Your task to perform on an android device: check the backup settings in the google photos Image 0: 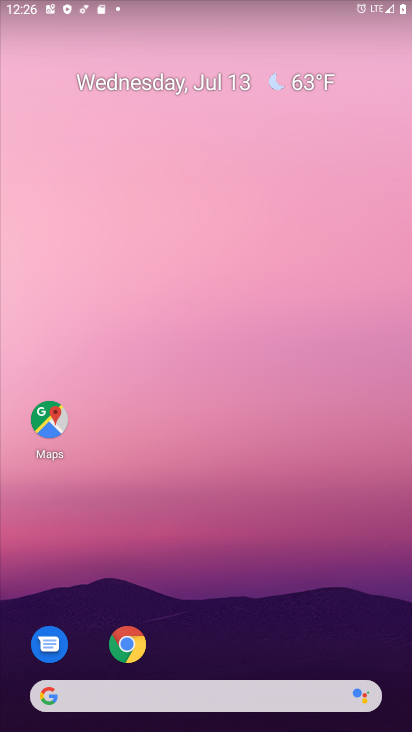
Step 0: drag from (200, 694) to (224, 176)
Your task to perform on an android device: check the backup settings in the google photos Image 1: 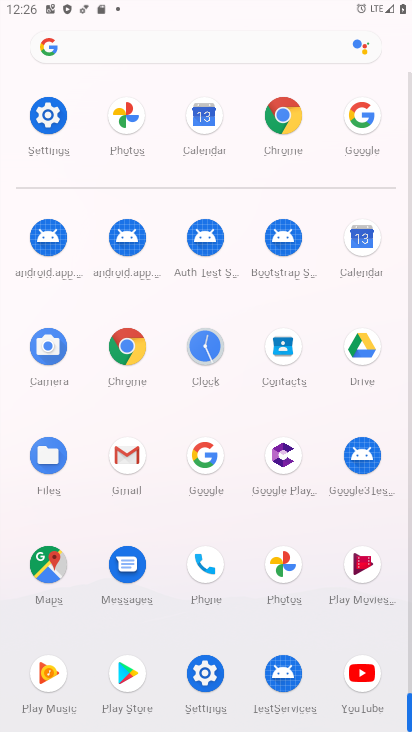
Step 1: click (124, 114)
Your task to perform on an android device: check the backup settings in the google photos Image 2: 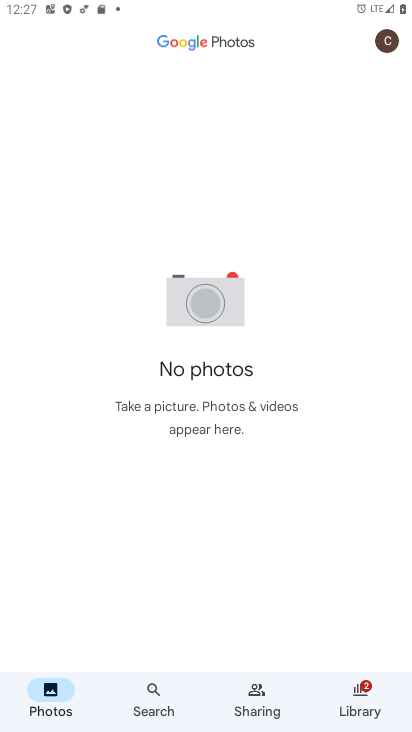
Step 2: click (389, 46)
Your task to perform on an android device: check the backup settings in the google photos Image 3: 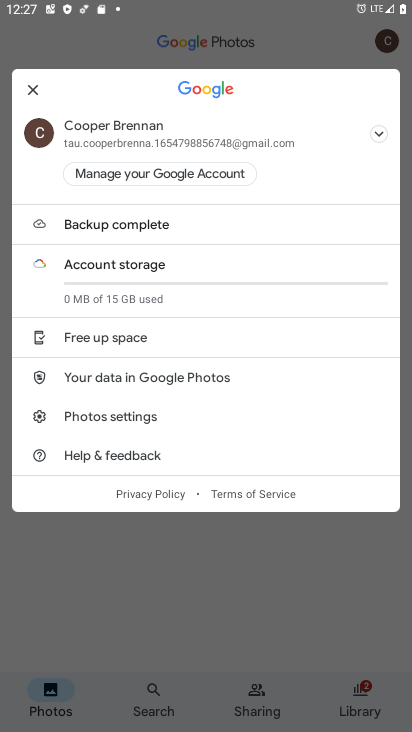
Step 3: click (130, 416)
Your task to perform on an android device: check the backup settings in the google photos Image 4: 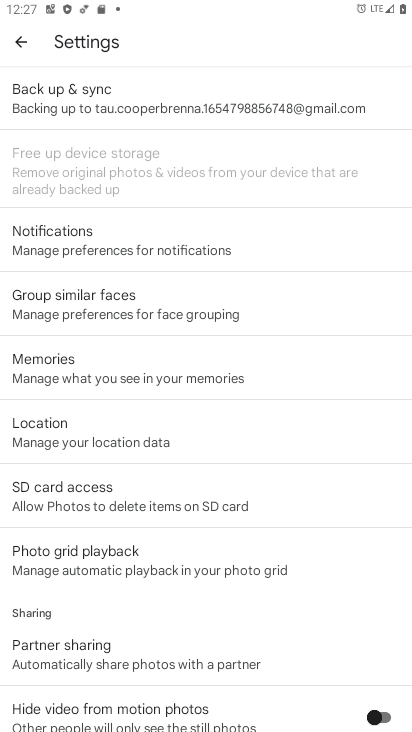
Step 4: click (115, 141)
Your task to perform on an android device: check the backup settings in the google photos Image 5: 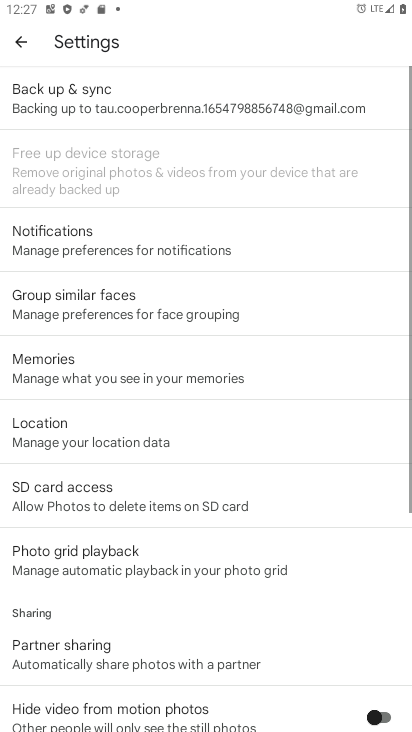
Step 5: click (141, 110)
Your task to perform on an android device: check the backup settings in the google photos Image 6: 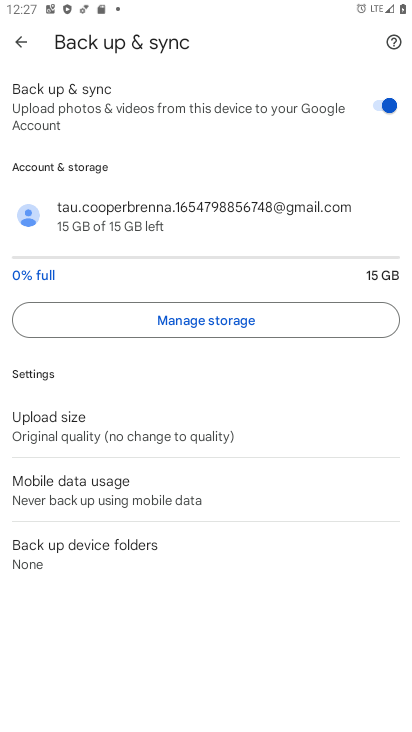
Step 6: task complete